Your task to perform on an android device: turn off notifications in google photos Image 0: 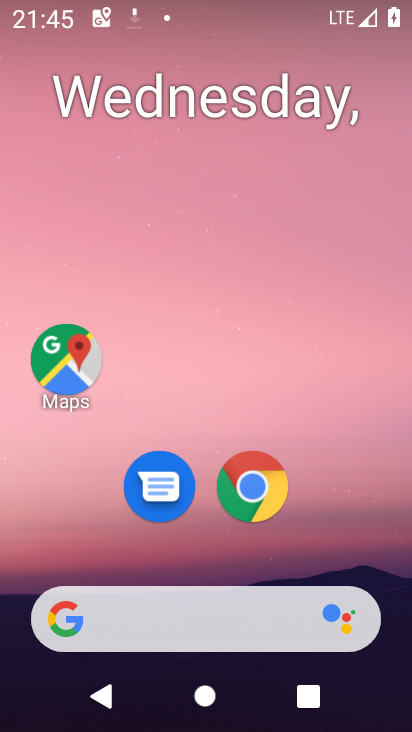
Step 0: drag from (119, 523) to (209, 2)
Your task to perform on an android device: turn off notifications in google photos Image 1: 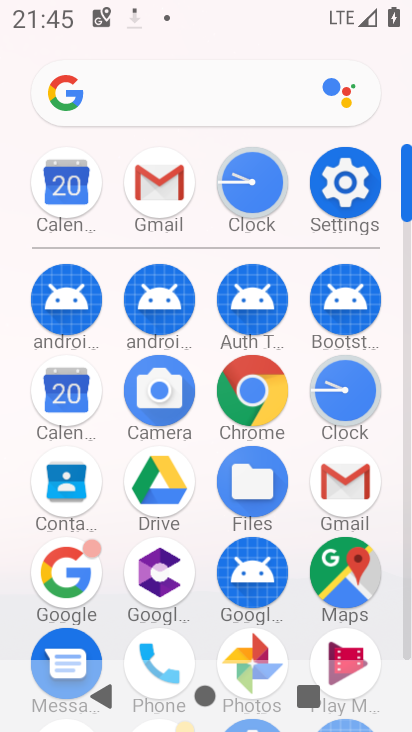
Step 1: click (262, 641)
Your task to perform on an android device: turn off notifications in google photos Image 2: 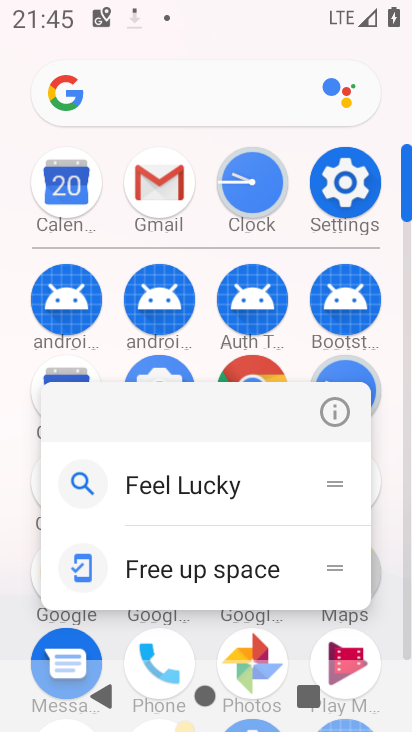
Step 2: click (329, 407)
Your task to perform on an android device: turn off notifications in google photos Image 3: 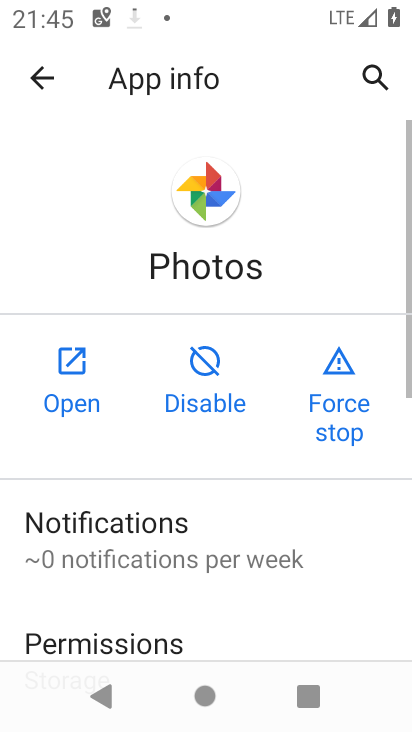
Step 3: click (152, 512)
Your task to perform on an android device: turn off notifications in google photos Image 4: 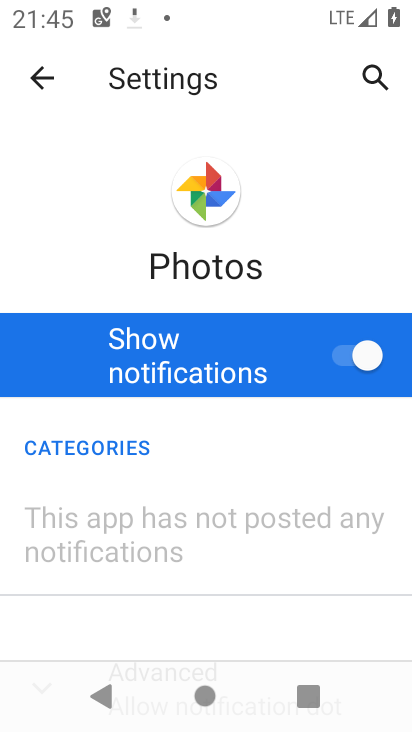
Step 4: click (360, 350)
Your task to perform on an android device: turn off notifications in google photos Image 5: 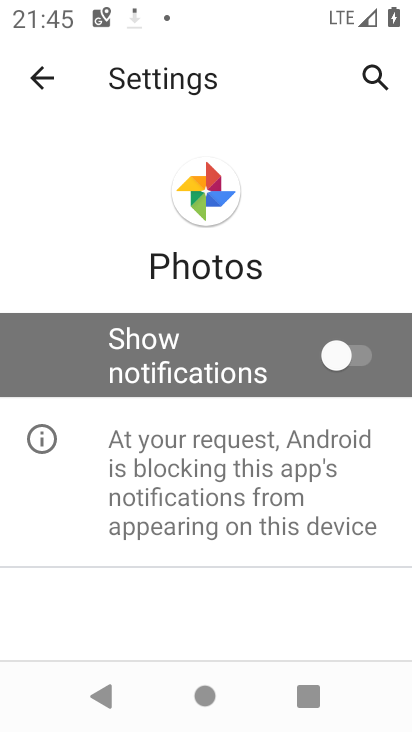
Step 5: task complete